Your task to perform on an android device: toggle javascript in the chrome app Image 0: 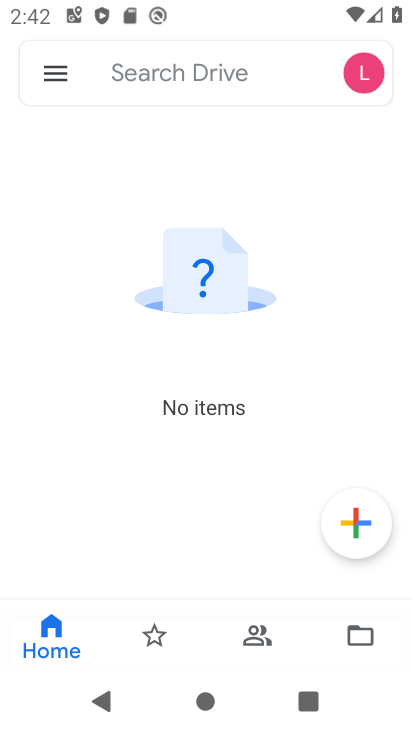
Step 0: press home button
Your task to perform on an android device: toggle javascript in the chrome app Image 1: 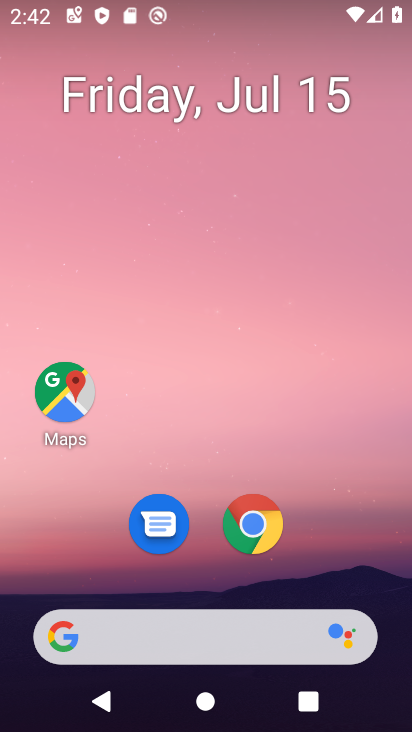
Step 1: click (248, 517)
Your task to perform on an android device: toggle javascript in the chrome app Image 2: 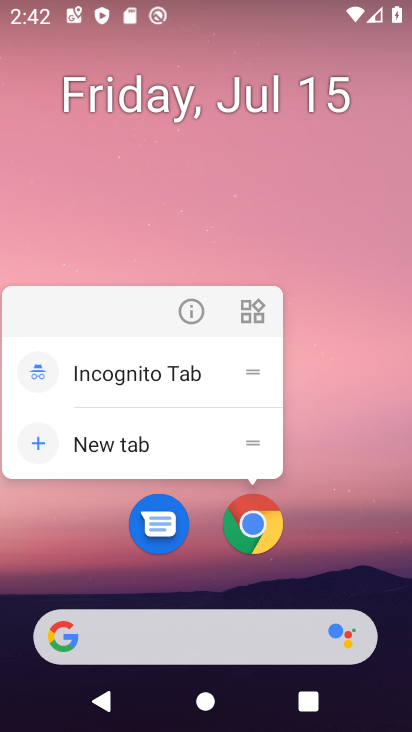
Step 2: click (258, 528)
Your task to perform on an android device: toggle javascript in the chrome app Image 3: 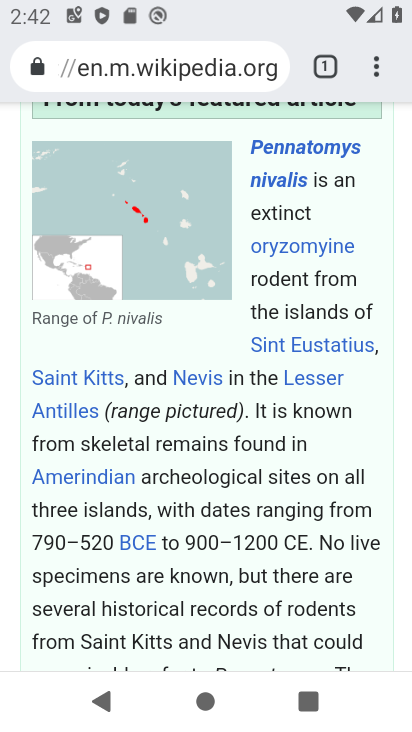
Step 3: drag from (381, 67) to (186, 536)
Your task to perform on an android device: toggle javascript in the chrome app Image 4: 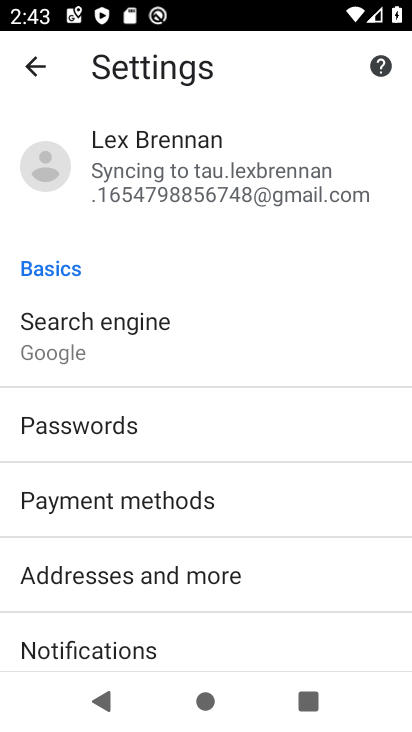
Step 4: drag from (253, 633) to (289, 90)
Your task to perform on an android device: toggle javascript in the chrome app Image 5: 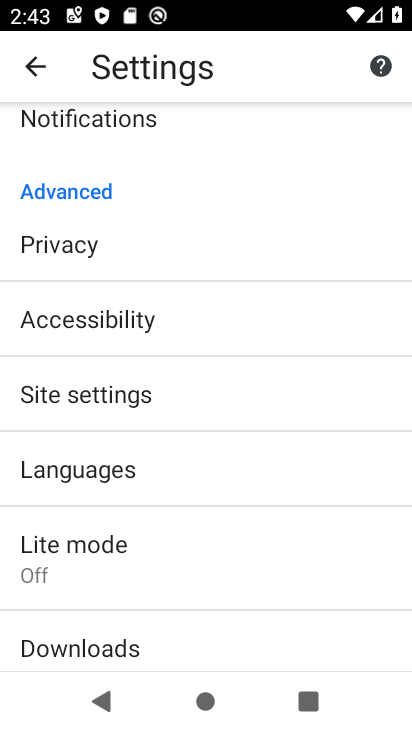
Step 5: click (89, 387)
Your task to perform on an android device: toggle javascript in the chrome app Image 6: 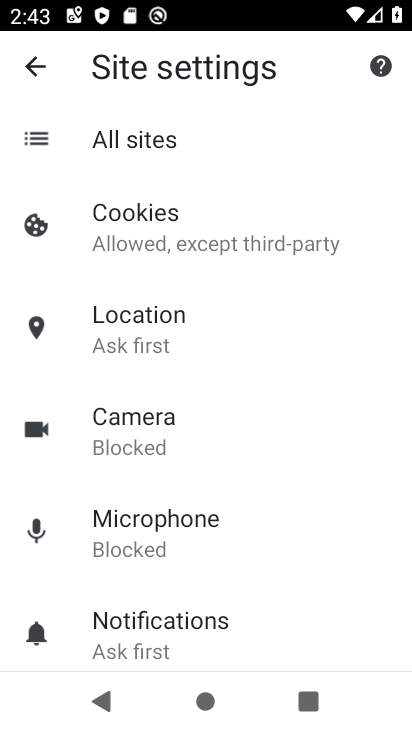
Step 6: drag from (237, 576) to (321, 134)
Your task to perform on an android device: toggle javascript in the chrome app Image 7: 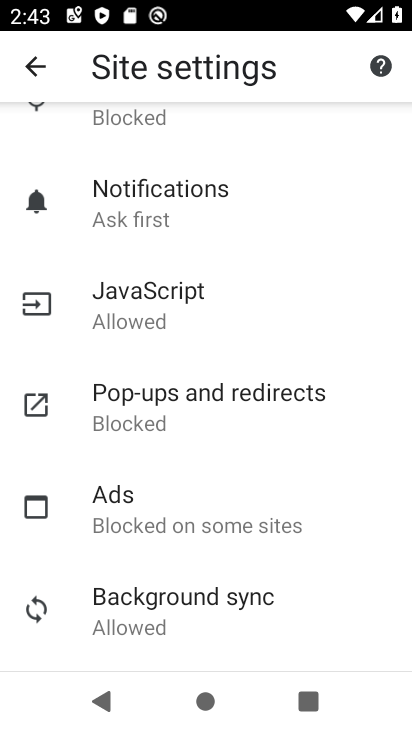
Step 7: click (149, 291)
Your task to perform on an android device: toggle javascript in the chrome app Image 8: 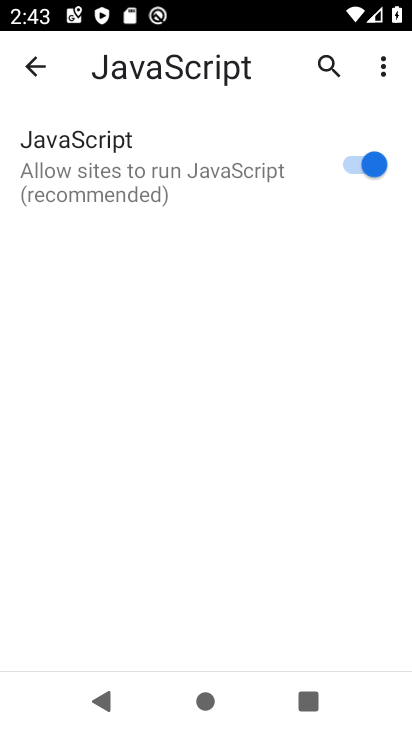
Step 8: click (359, 166)
Your task to perform on an android device: toggle javascript in the chrome app Image 9: 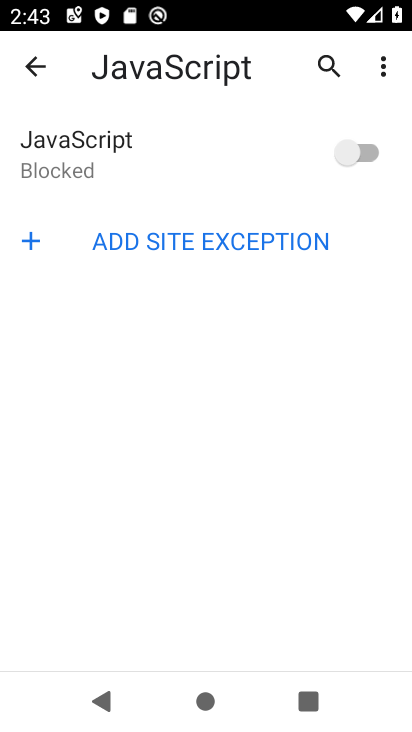
Step 9: task complete